Your task to perform on an android device: set an alarm Image 0: 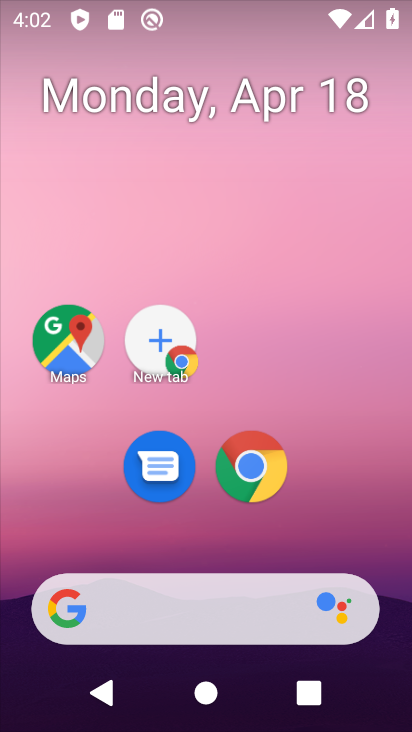
Step 0: drag from (356, 543) to (313, 45)
Your task to perform on an android device: set an alarm Image 1: 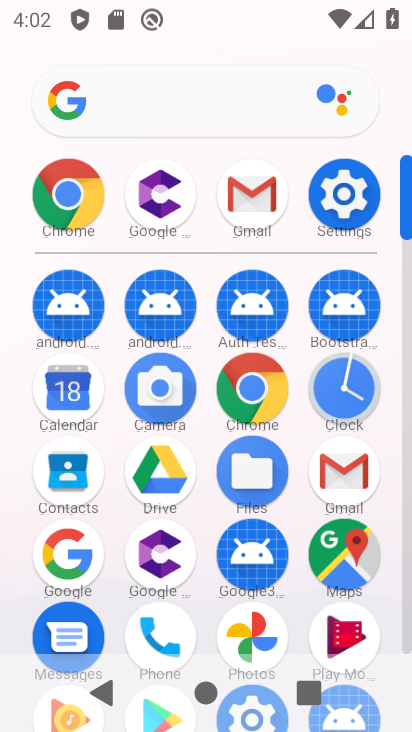
Step 1: drag from (11, 475) to (19, 150)
Your task to perform on an android device: set an alarm Image 2: 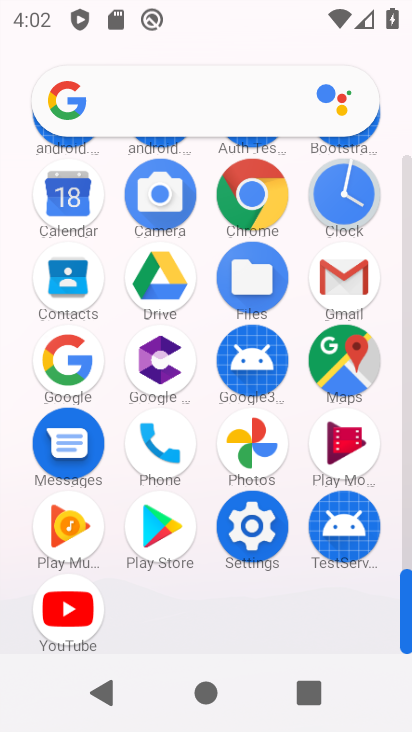
Step 2: click (347, 188)
Your task to perform on an android device: set an alarm Image 3: 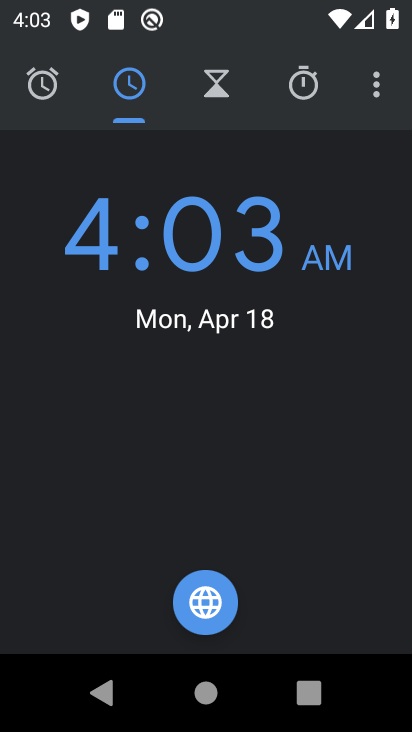
Step 3: click (53, 91)
Your task to perform on an android device: set an alarm Image 4: 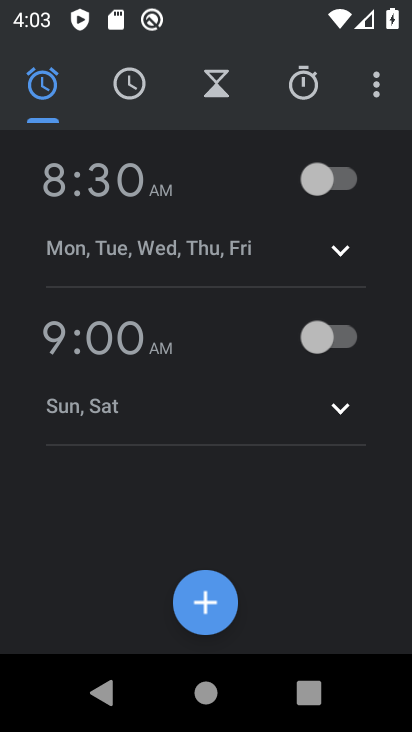
Step 4: click (213, 603)
Your task to perform on an android device: set an alarm Image 5: 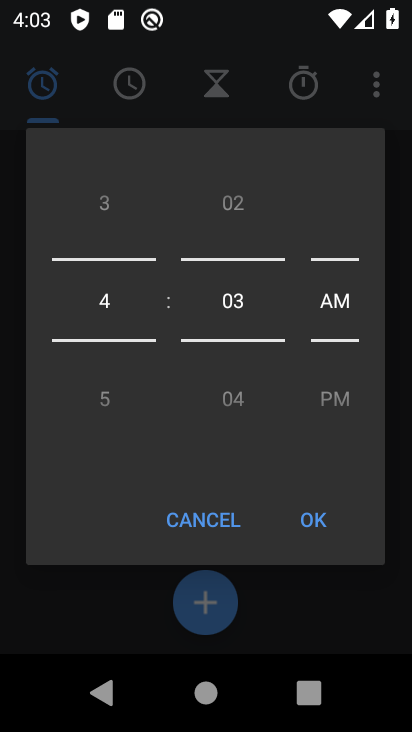
Step 5: drag from (219, 224) to (243, 414)
Your task to perform on an android device: set an alarm Image 6: 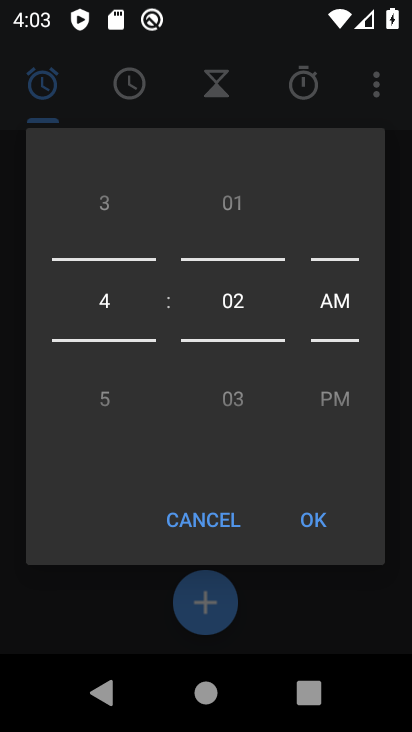
Step 6: click (316, 520)
Your task to perform on an android device: set an alarm Image 7: 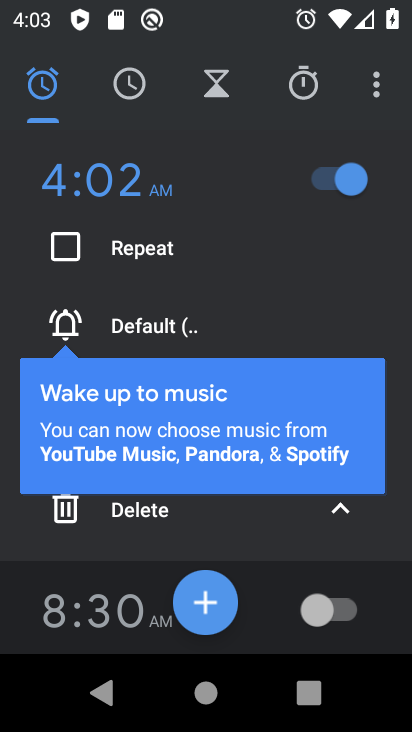
Step 7: task complete